Your task to perform on an android device: change notifications settings Image 0: 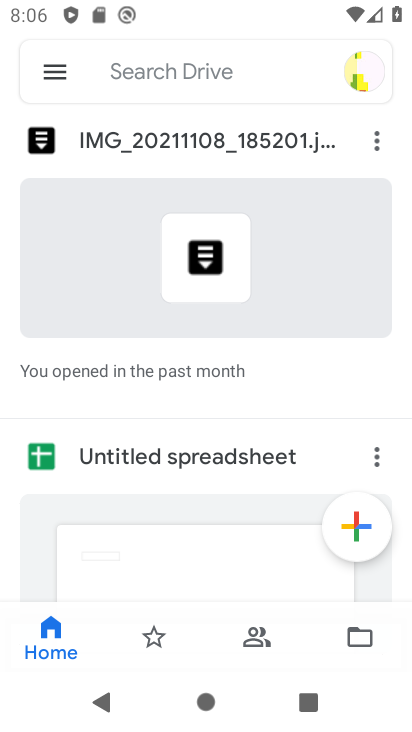
Step 0: press home button
Your task to perform on an android device: change notifications settings Image 1: 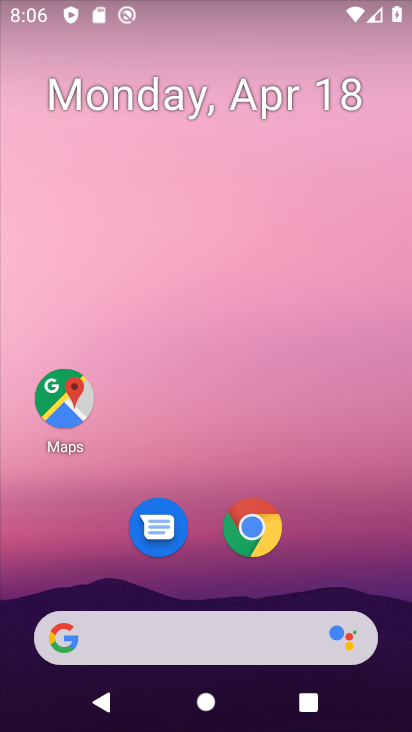
Step 1: drag from (199, 532) to (372, 110)
Your task to perform on an android device: change notifications settings Image 2: 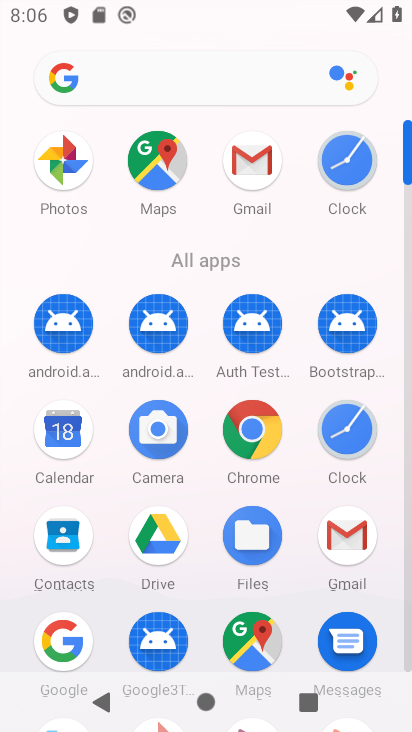
Step 2: drag from (188, 580) to (209, 231)
Your task to perform on an android device: change notifications settings Image 3: 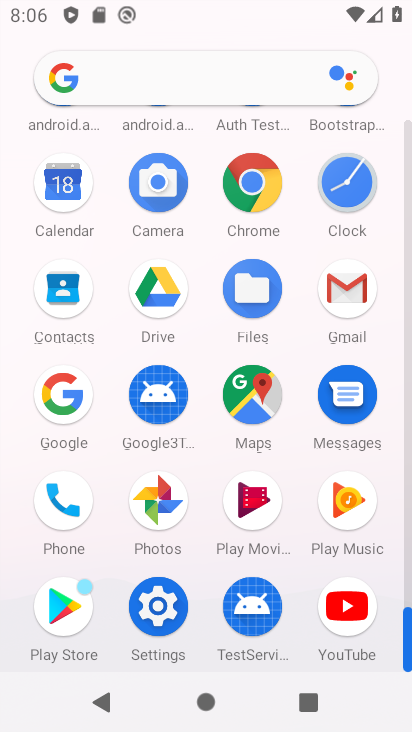
Step 3: click (165, 598)
Your task to perform on an android device: change notifications settings Image 4: 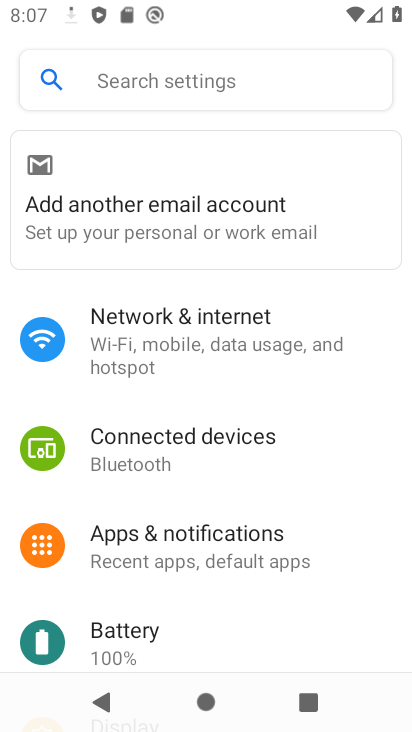
Step 4: drag from (191, 514) to (215, 118)
Your task to perform on an android device: change notifications settings Image 5: 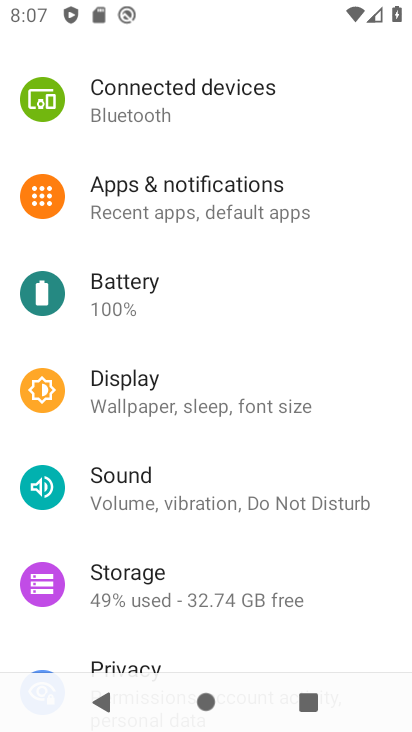
Step 5: click (190, 173)
Your task to perform on an android device: change notifications settings Image 6: 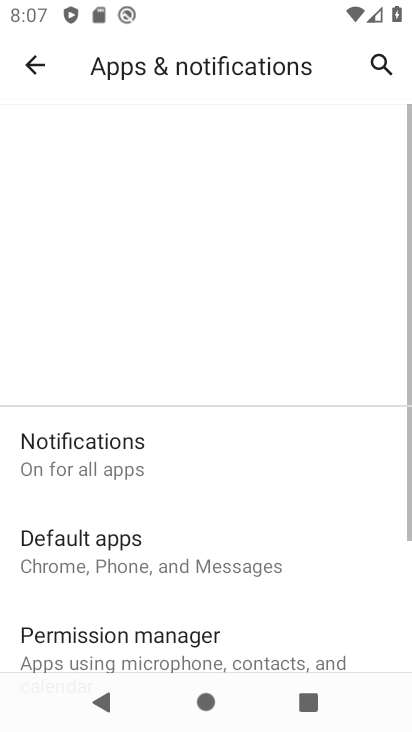
Step 6: drag from (168, 524) to (173, 455)
Your task to perform on an android device: change notifications settings Image 7: 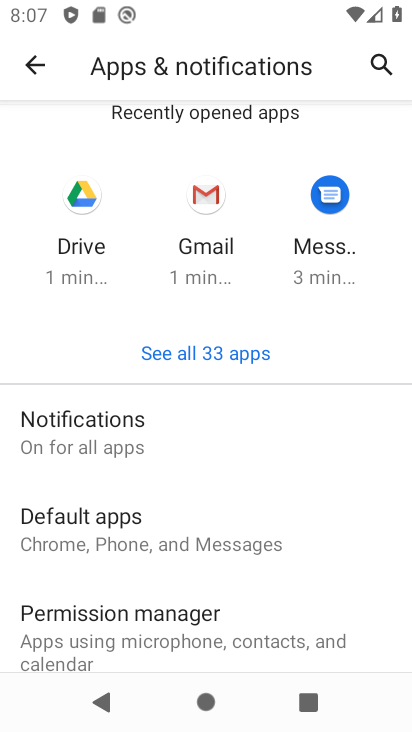
Step 7: click (124, 443)
Your task to perform on an android device: change notifications settings Image 8: 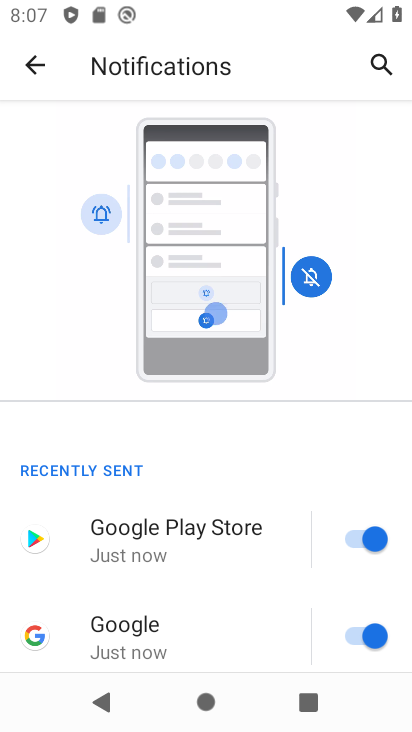
Step 8: click (362, 544)
Your task to perform on an android device: change notifications settings Image 9: 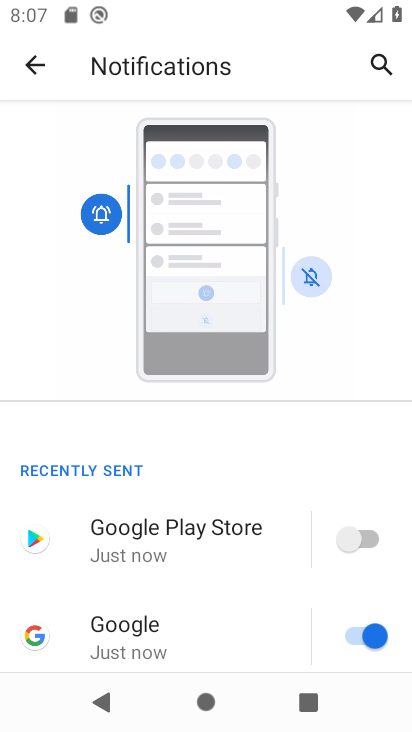
Step 9: click (362, 544)
Your task to perform on an android device: change notifications settings Image 10: 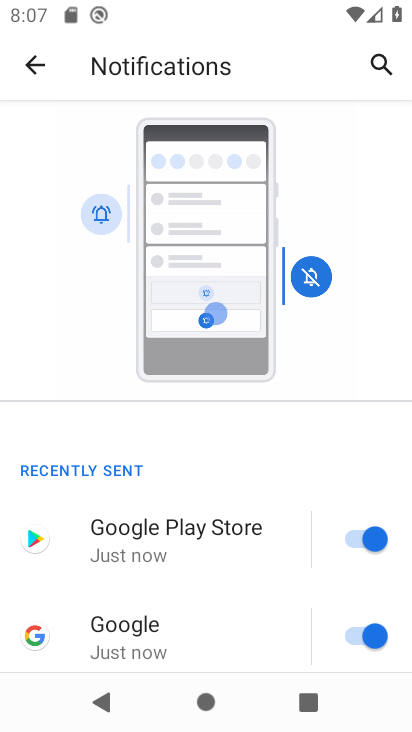
Step 10: task complete